Your task to perform on an android device: Open the map Image 0: 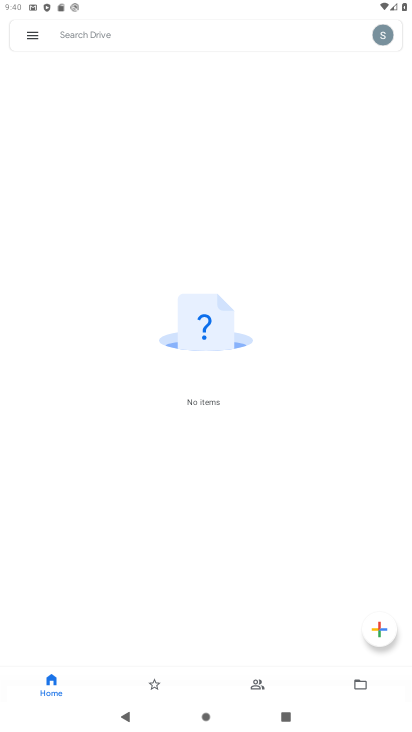
Step 0: press home button
Your task to perform on an android device: Open the map Image 1: 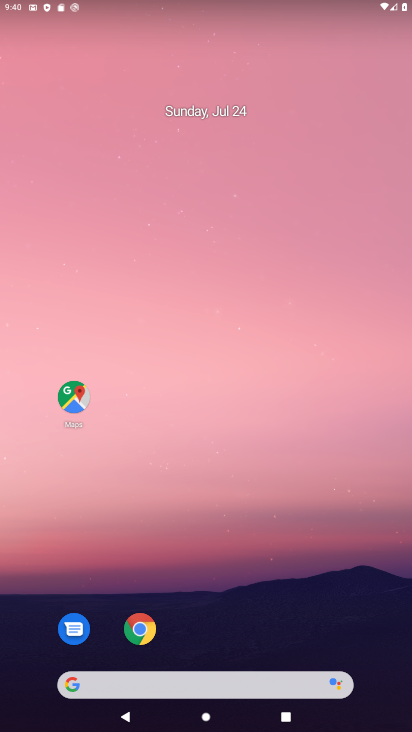
Step 1: drag from (197, 687) to (244, 193)
Your task to perform on an android device: Open the map Image 2: 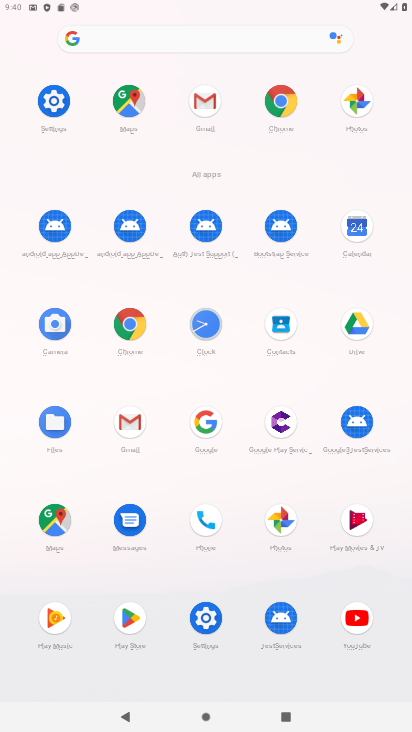
Step 2: click (130, 105)
Your task to perform on an android device: Open the map Image 3: 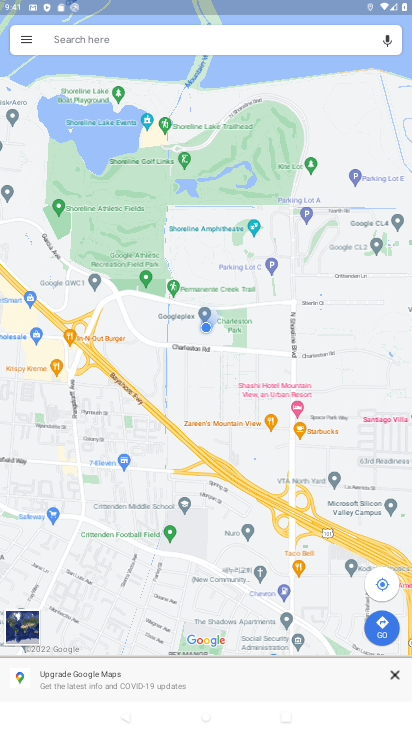
Step 3: task complete